Your task to perform on an android device: Go to Wikipedia Image 0: 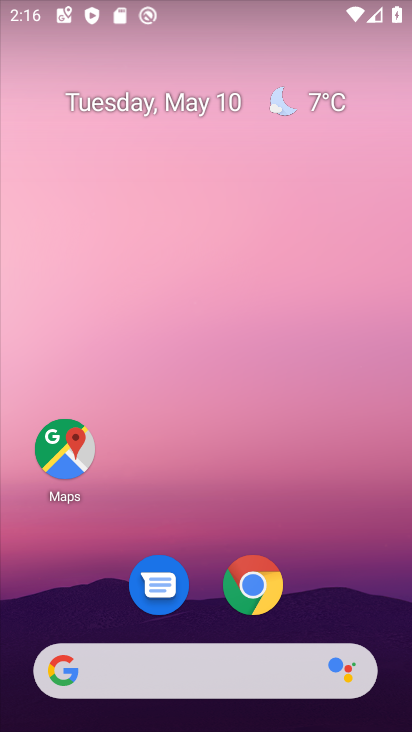
Step 0: click (255, 576)
Your task to perform on an android device: Go to Wikipedia Image 1: 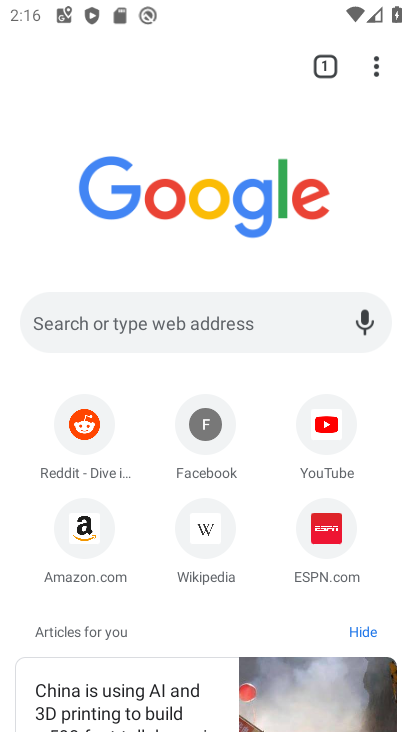
Step 1: click (211, 528)
Your task to perform on an android device: Go to Wikipedia Image 2: 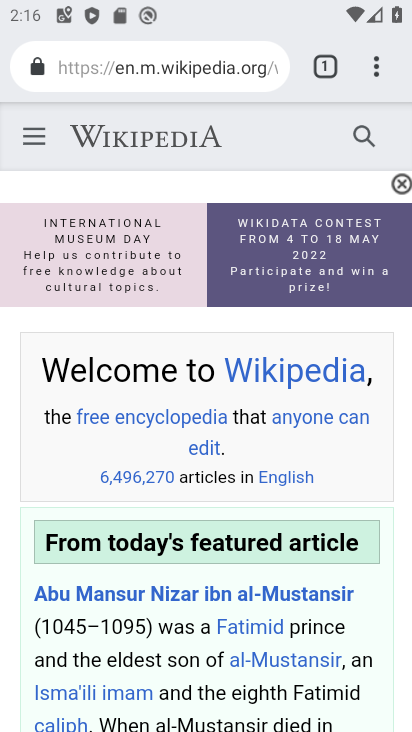
Step 2: task complete